Your task to perform on an android device: Open maps Image 0: 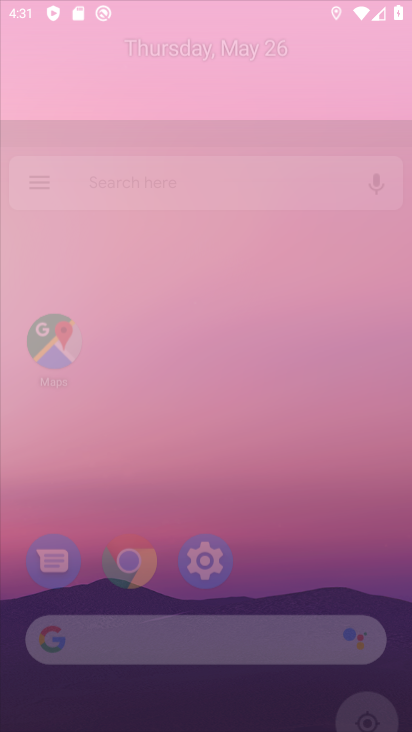
Step 0: click (32, 52)
Your task to perform on an android device: Open maps Image 1: 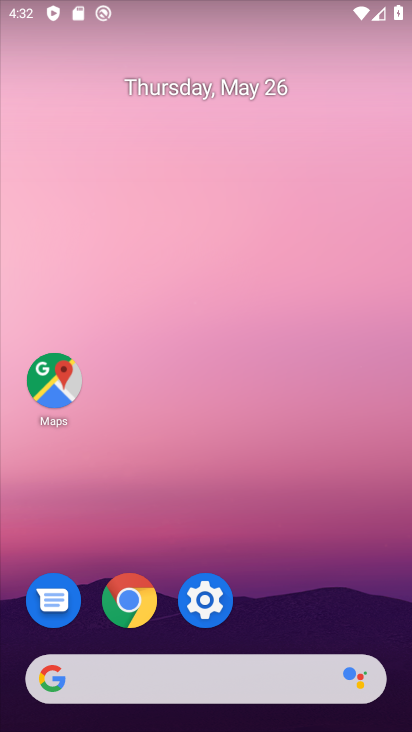
Step 1: drag from (310, 543) to (322, 179)
Your task to perform on an android device: Open maps Image 2: 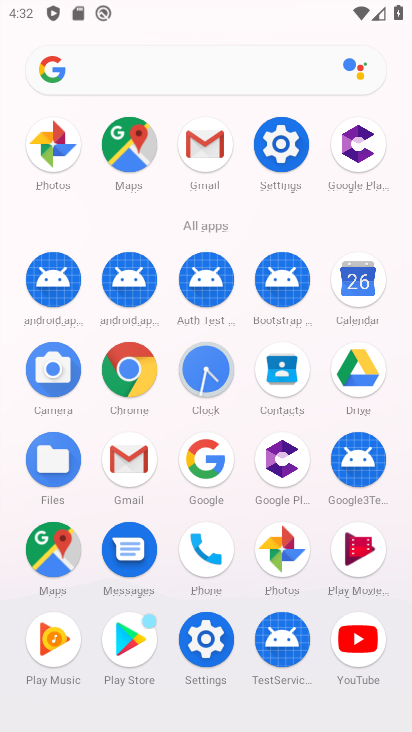
Step 2: click (41, 548)
Your task to perform on an android device: Open maps Image 3: 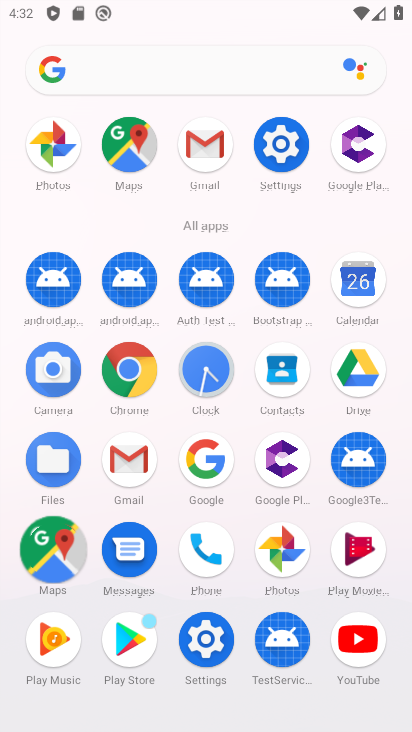
Step 3: click (41, 548)
Your task to perform on an android device: Open maps Image 4: 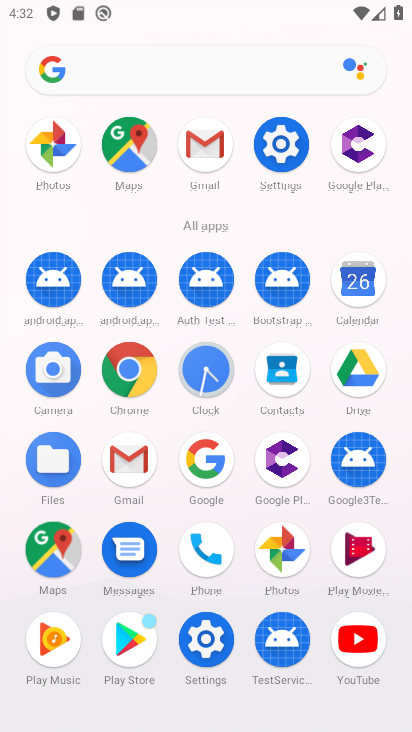
Step 4: click (41, 548)
Your task to perform on an android device: Open maps Image 5: 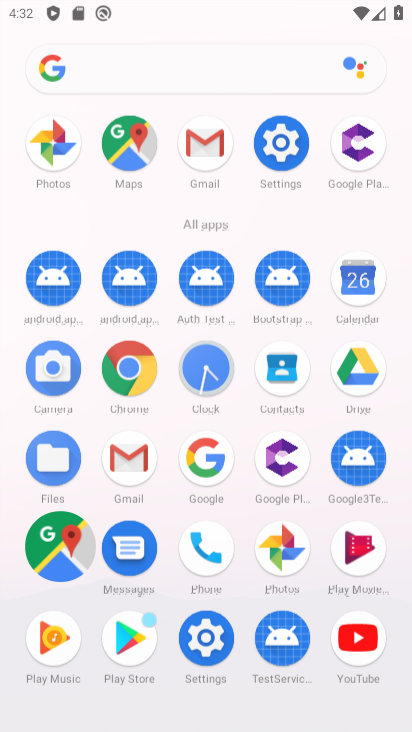
Step 5: click (41, 548)
Your task to perform on an android device: Open maps Image 6: 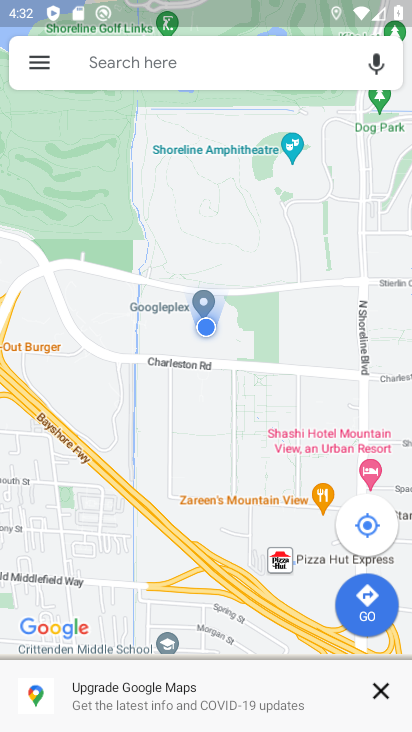
Step 6: task complete